Your task to perform on an android device: toggle wifi Image 0: 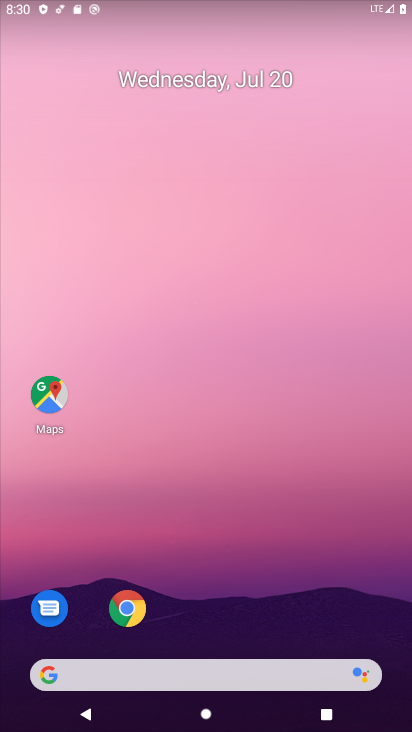
Step 0: drag from (280, 615) to (280, 86)
Your task to perform on an android device: toggle wifi Image 1: 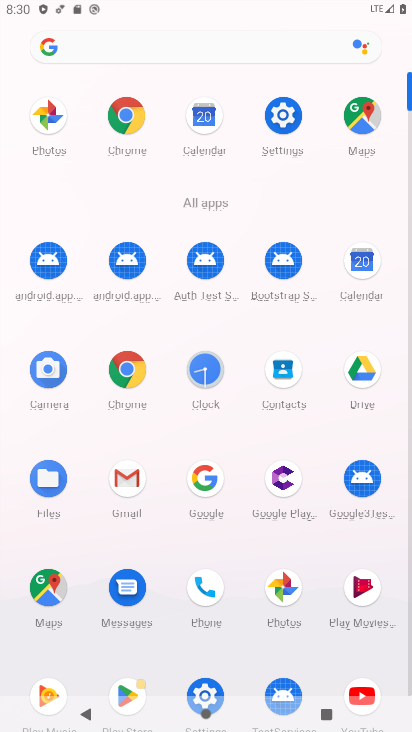
Step 1: click (292, 105)
Your task to perform on an android device: toggle wifi Image 2: 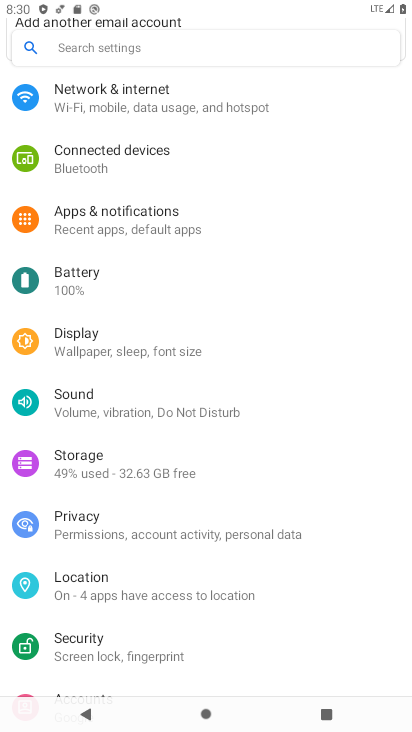
Step 2: click (147, 91)
Your task to perform on an android device: toggle wifi Image 3: 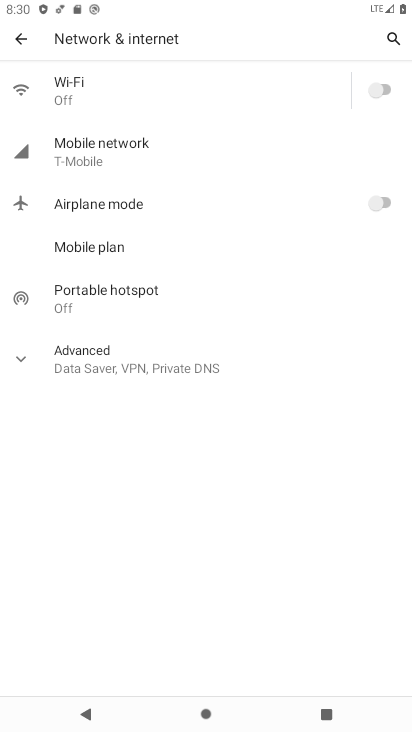
Step 3: click (377, 90)
Your task to perform on an android device: toggle wifi Image 4: 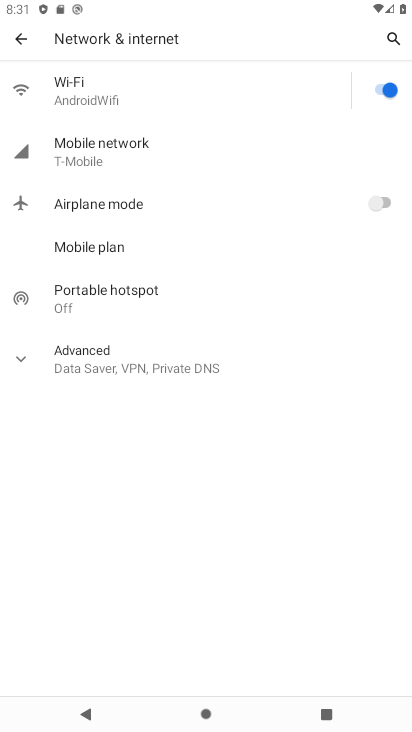
Step 4: task complete